Your task to perform on an android device: Add macbook pro to the cart on newegg.com, then select checkout. Image 0: 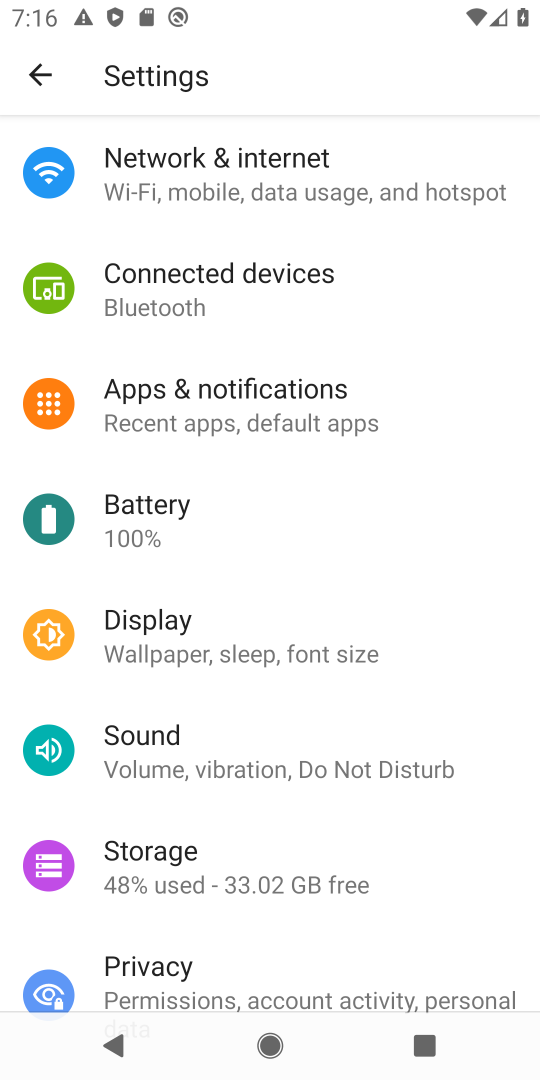
Step 0: press home button
Your task to perform on an android device: Add macbook pro to the cart on newegg.com, then select checkout. Image 1: 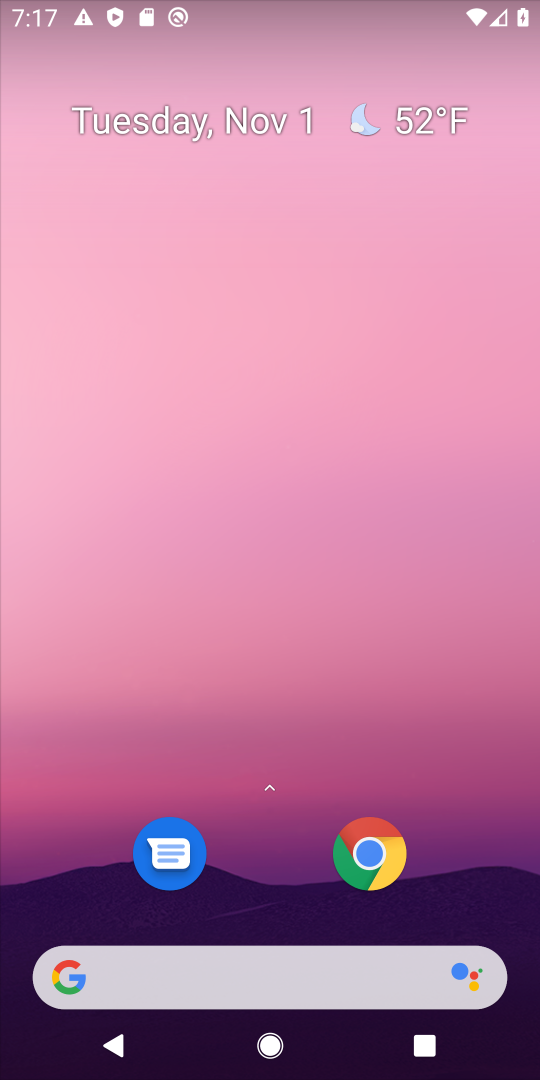
Step 1: click (260, 999)
Your task to perform on an android device: Add macbook pro to the cart on newegg.com, then select checkout. Image 2: 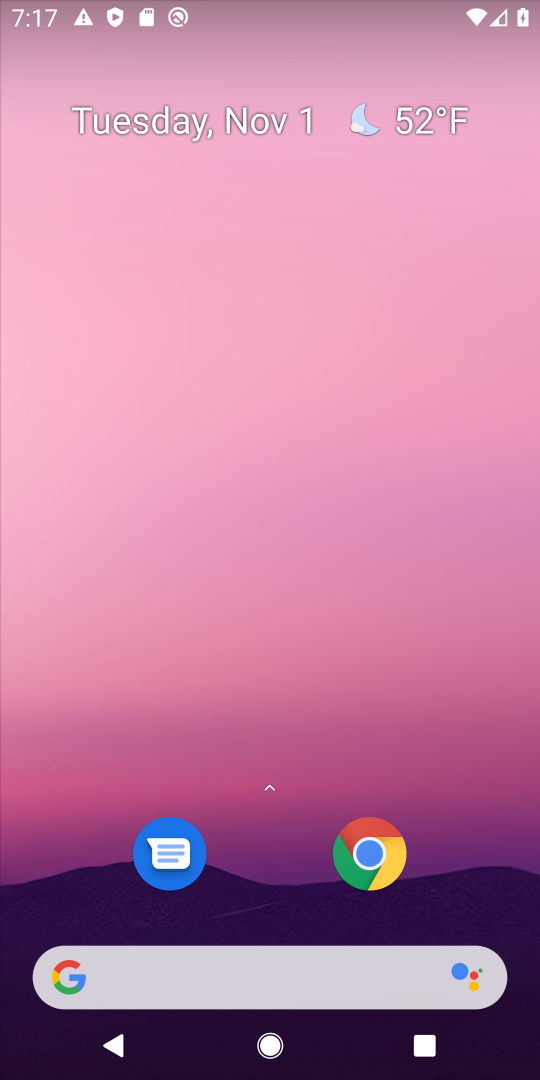
Step 2: click (266, 991)
Your task to perform on an android device: Add macbook pro to the cart on newegg.com, then select checkout. Image 3: 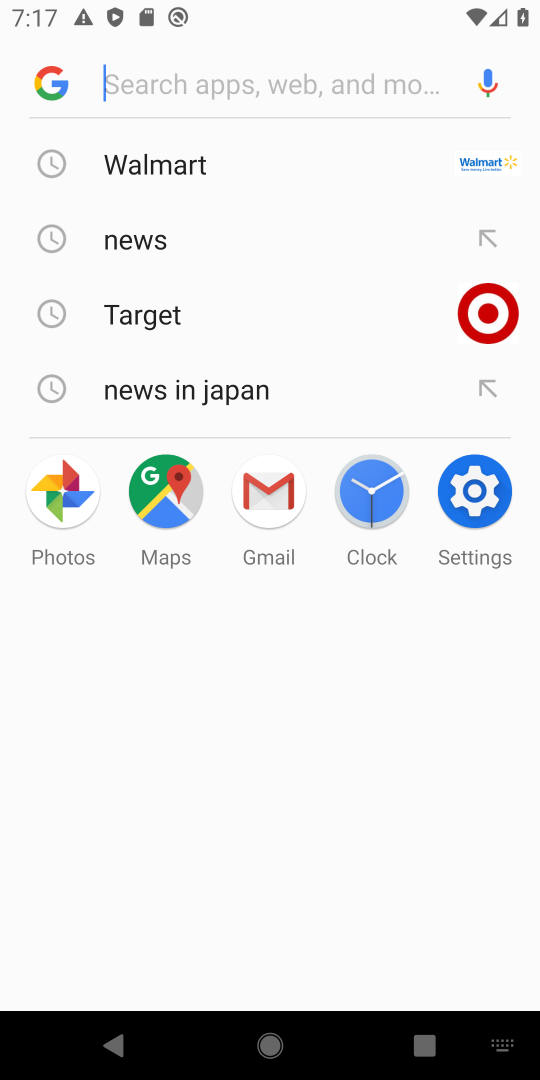
Step 3: type "newegg"
Your task to perform on an android device: Add macbook pro to the cart on newegg.com, then select checkout. Image 4: 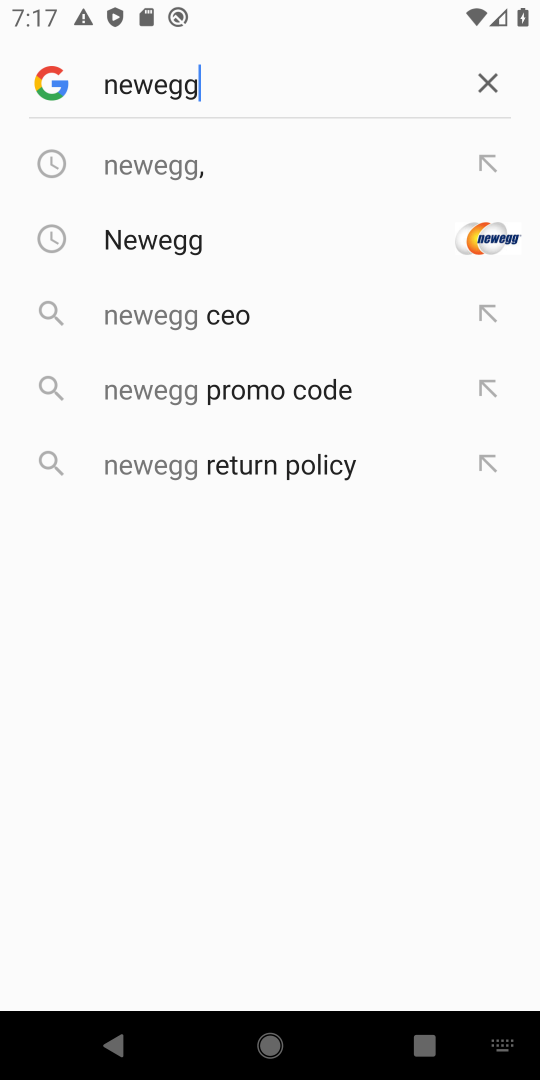
Step 4: click (260, 172)
Your task to perform on an android device: Add macbook pro to the cart on newegg.com, then select checkout. Image 5: 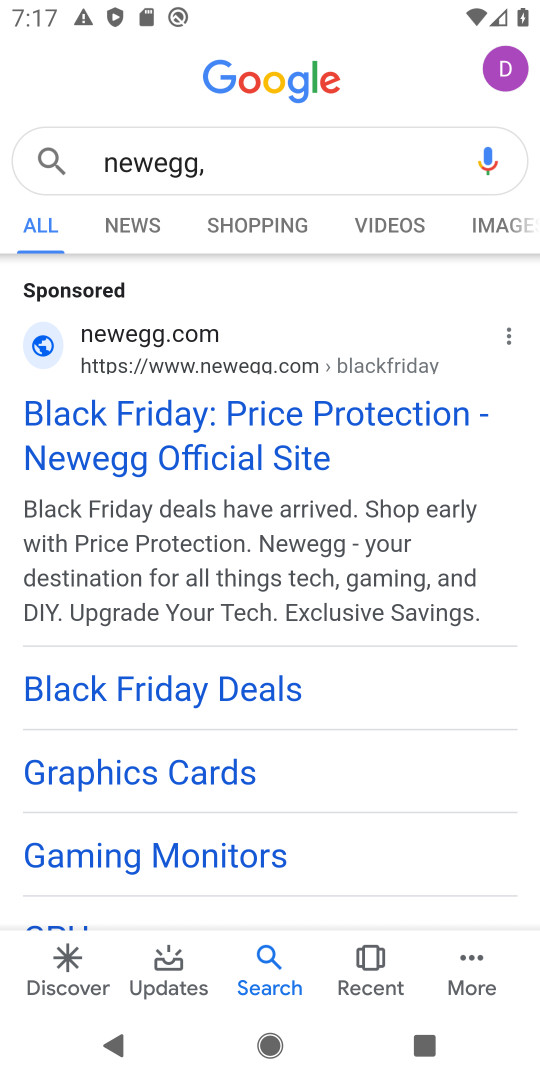
Step 5: click (178, 410)
Your task to perform on an android device: Add macbook pro to the cart on newegg.com, then select checkout. Image 6: 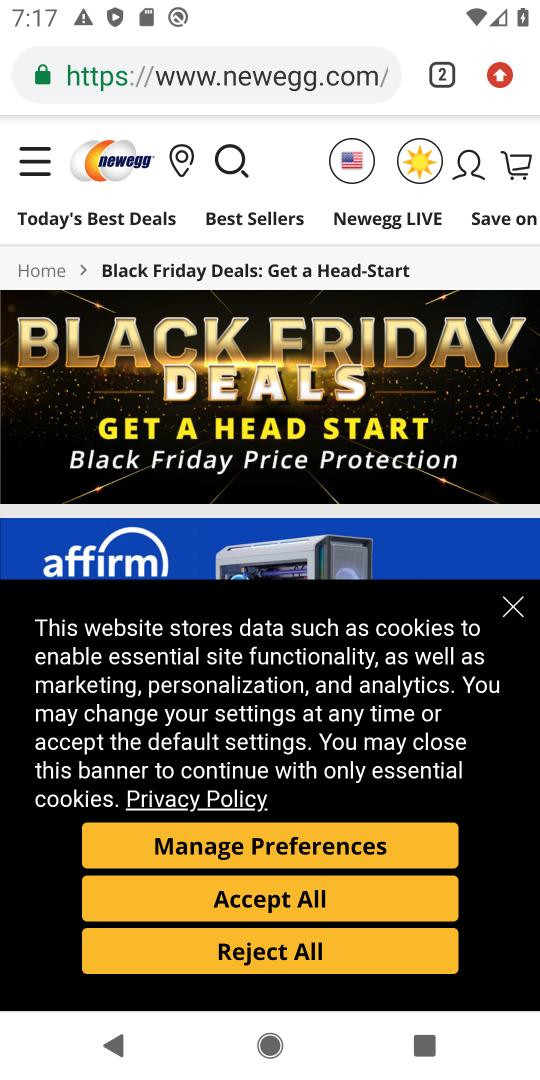
Step 6: click (233, 908)
Your task to perform on an android device: Add macbook pro to the cart on newegg.com, then select checkout. Image 7: 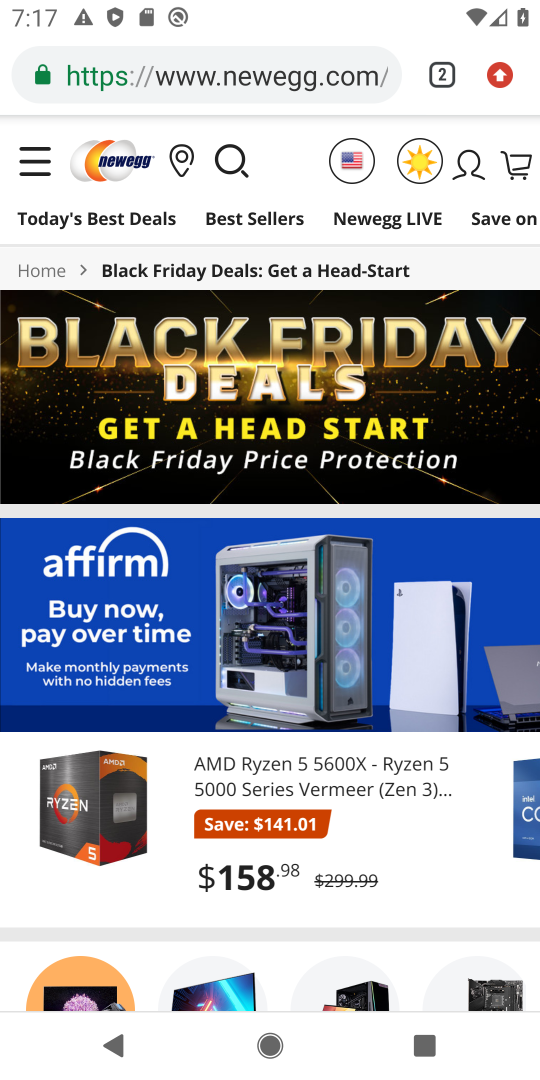
Step 7: drag from (254, 761) to (265, 705)
Your task to perform on an android device: Add macbook pro to the cart on newegg.com, then select checkout. Image 8: 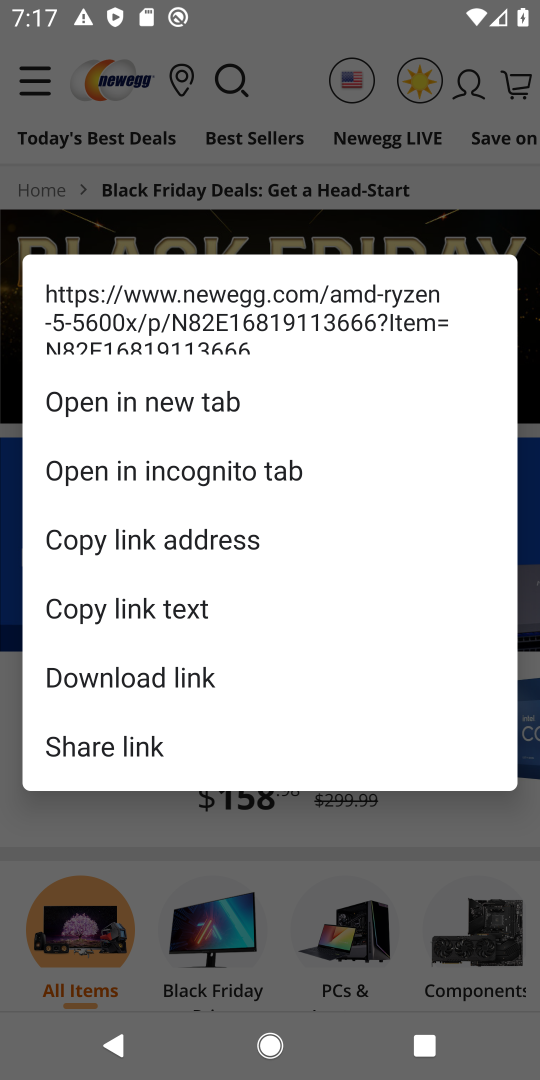
Step 8: click (251, 105)
Your task to perform on an android device: Add macbook pro to the cart on newegg.com, then select checkout. Image 9: 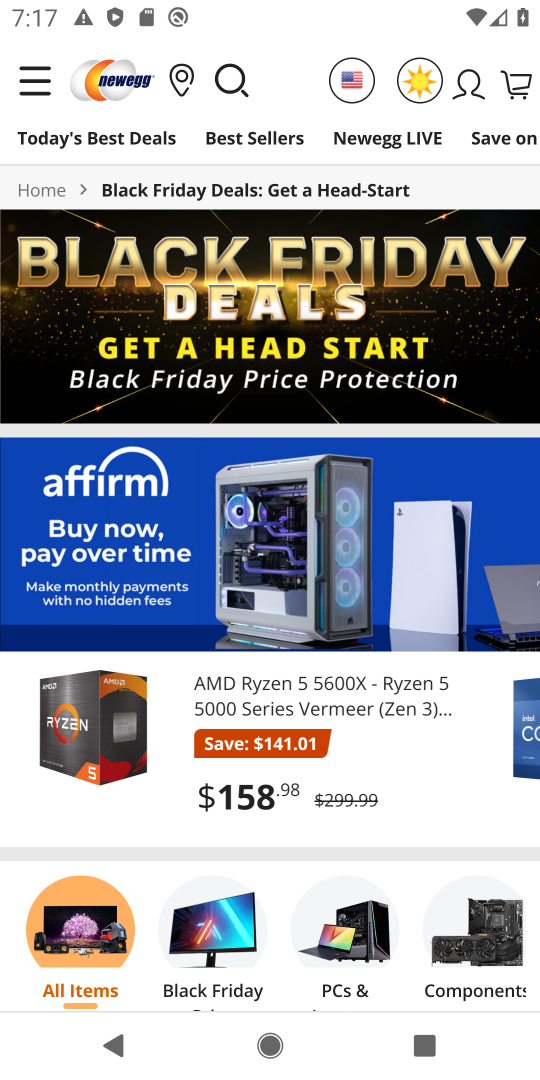
Step 9: click (251, 105)
Your task to perform on an android device: Add macbook pro to the cart on newegg.com, then select checkout. Image 10: 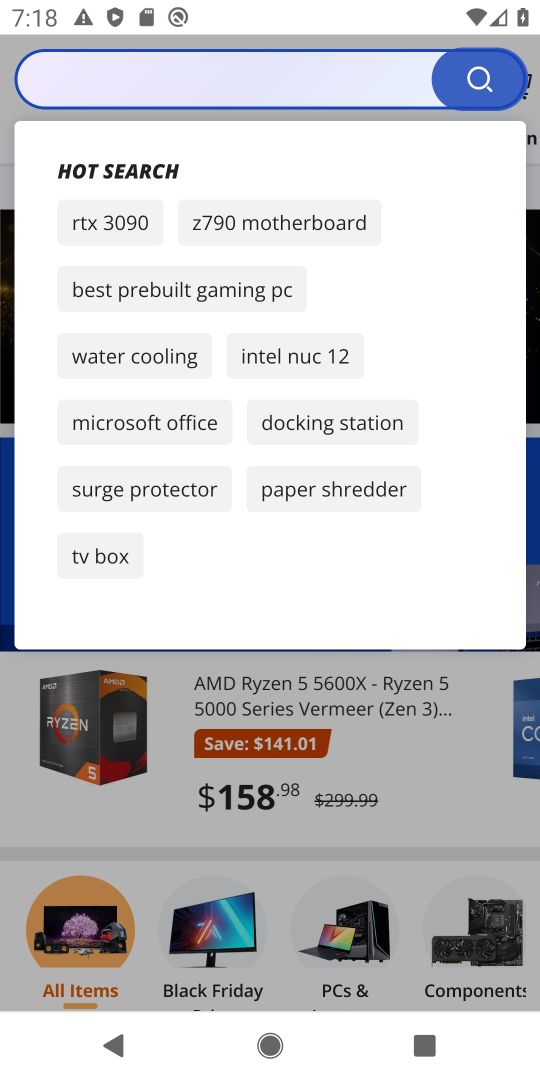
Step 10: type "macbook pro"
Your task to perform on an android device: Add macbook pro to the cart on newegg.com, then select checkout. Image 11: 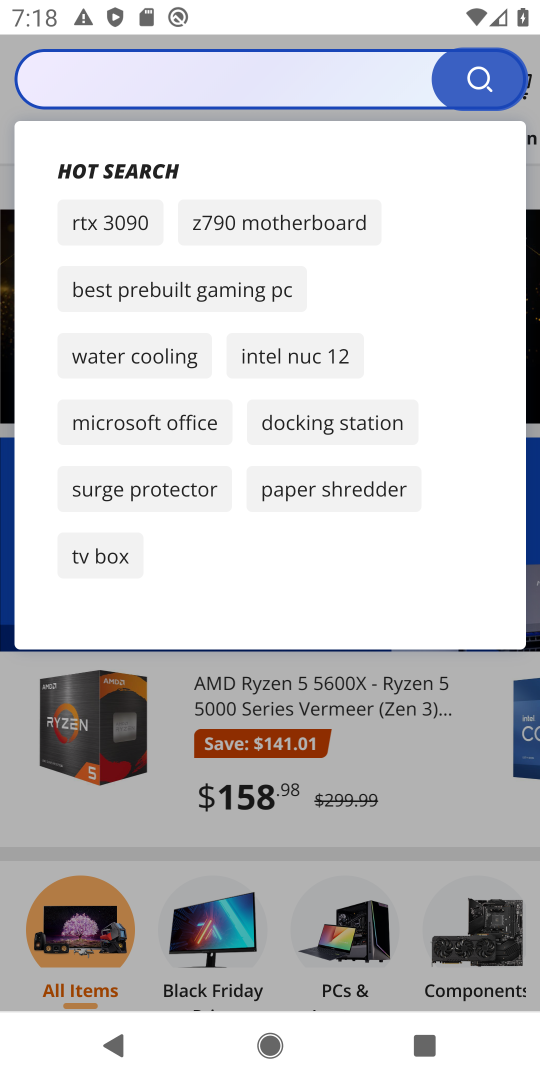
Step 11: click (44, 80)
Your task to perform on an android device: Add macbook pro to the cart on newegg.com, then select checkout. Image 12: 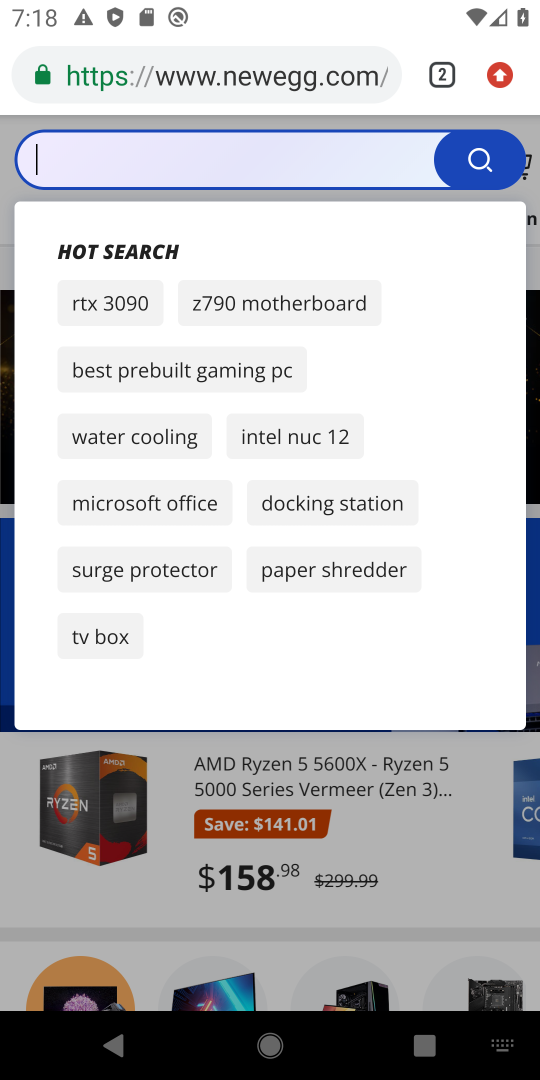
Step 12: type "macbook pro"
Your task to perform on an android device: Add macbook pro to the cart on newegg.com, then select checkout. Image 13: 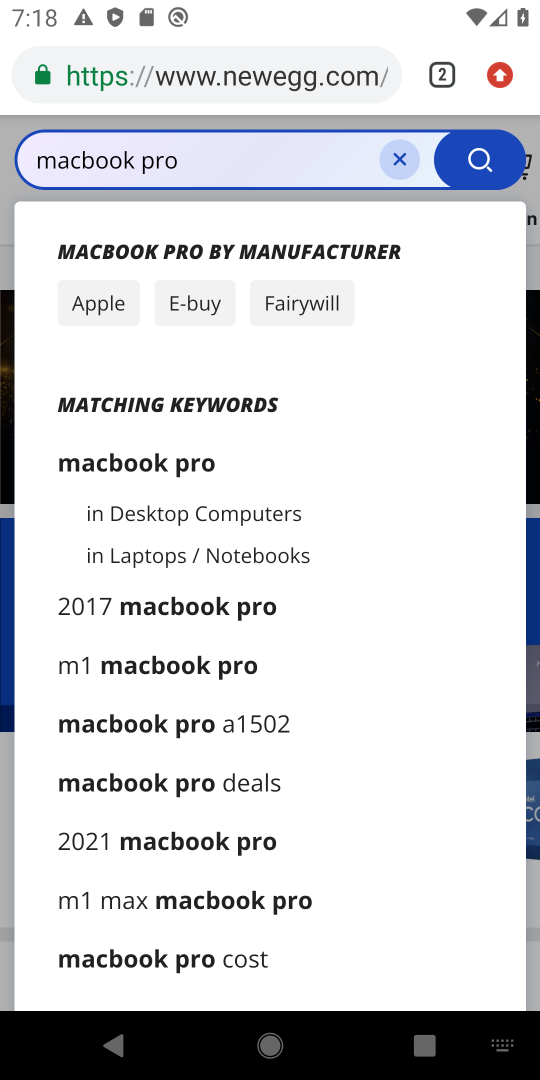
Step 13: click (97, 311)
Your task to perform on an android device: Add macbook pro to the cart on newegg.com, then select checkout. Image 14: 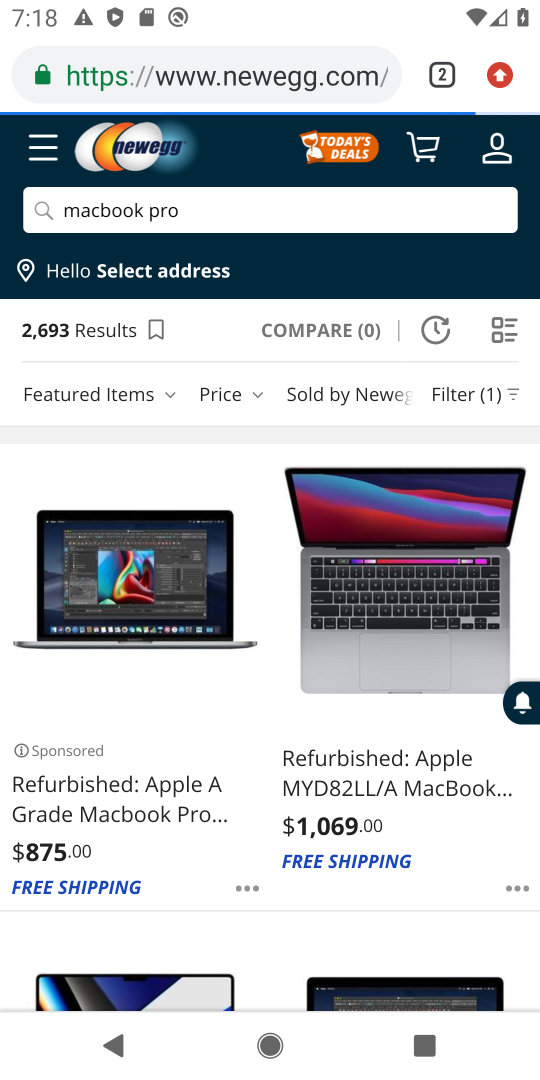
Step 14: click (453, 769)
Your task to perform on an android device: Add macbook pro to the cart on newegg.com, then select checkout. Image 15: 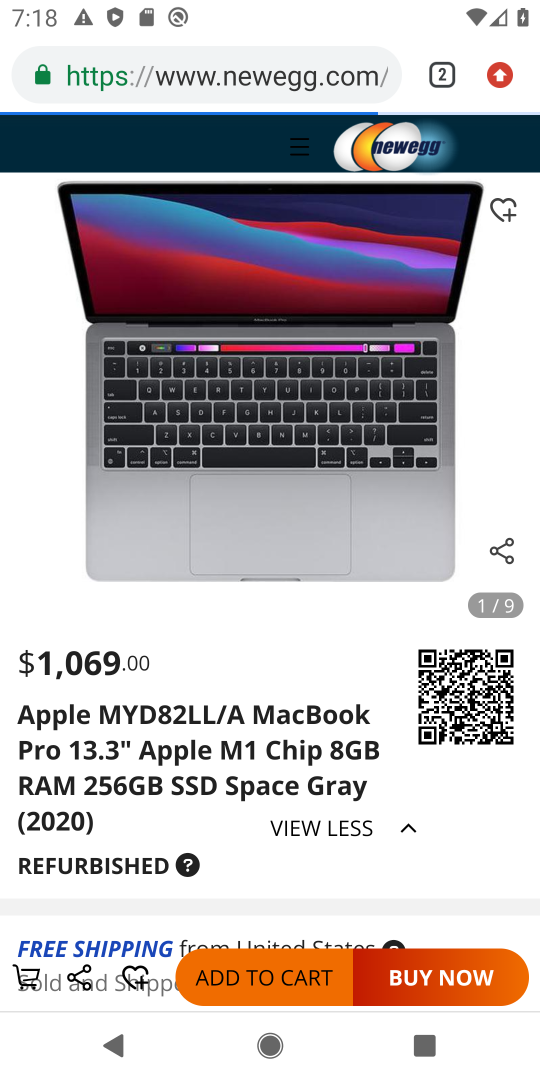
Step 15: click (216, 352)
Your task to perform on an android device: Add macbook pro to the cart on newegg.com, then select checkout. Image 16: 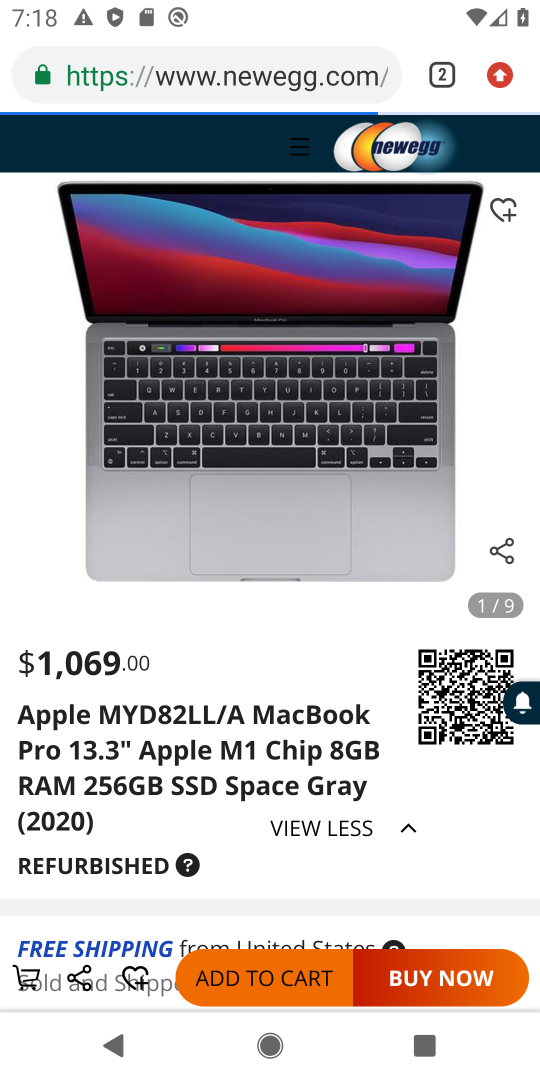
Step 16: click (276, 968)
Your task to perform on an android device: Add macbook pro to the cart on newegg.com, then select checkout. Image 17: 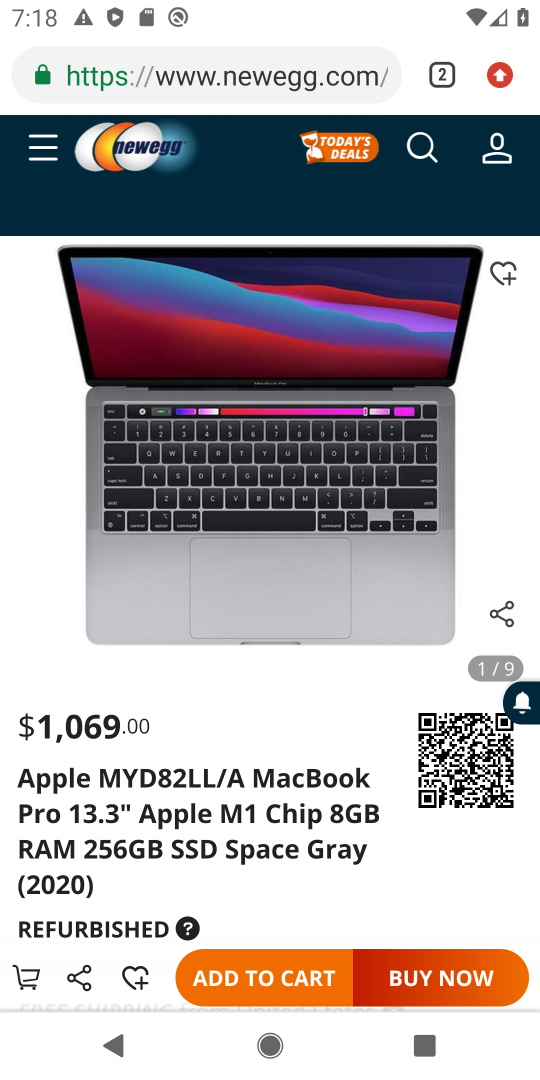
Step 17: task complete